Your task to perform on an android device: change text size in settings app Image 0: 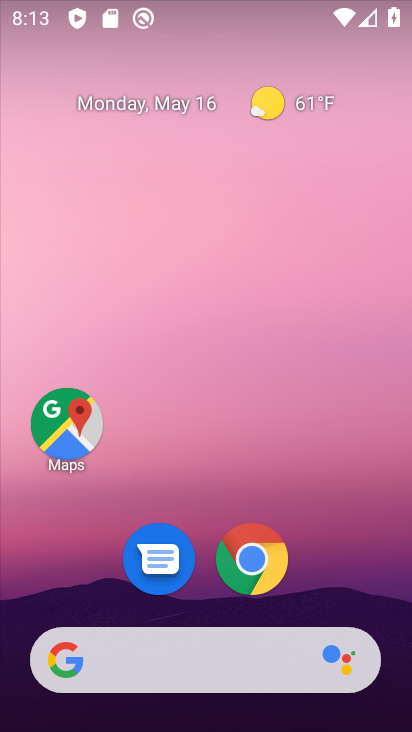
Step 0: drag from (342, 556) to (369, 119)
Your task to perform on an android device: change text size in settings app Image 1: 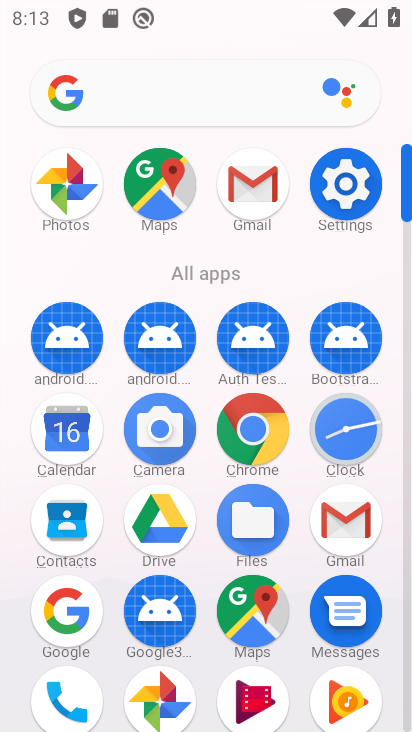
Step 1: click (376, 191)
Your task to perform on an android device: change text size in settings app Image 2: 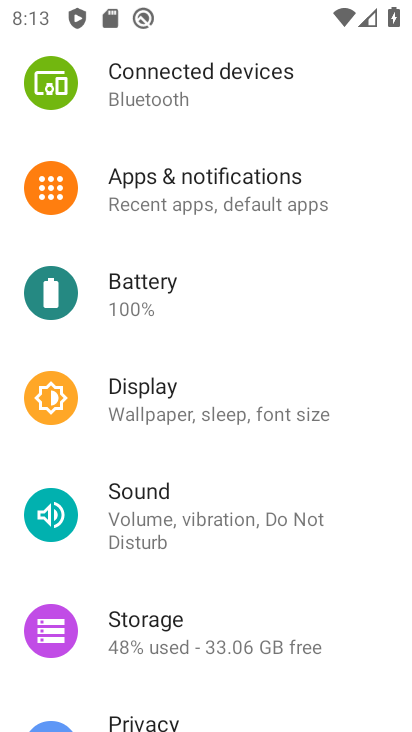
Step 2: drag from (241, 606) to (316, 300)
Your task to perform on an android device: change text size in settings app Image 3: 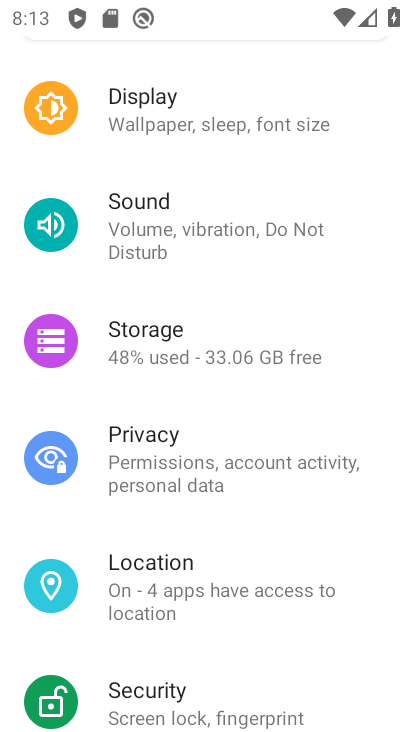
Step 3: click (285, 128)
Your task to perform on an android device: change text size in settings app Image 4: 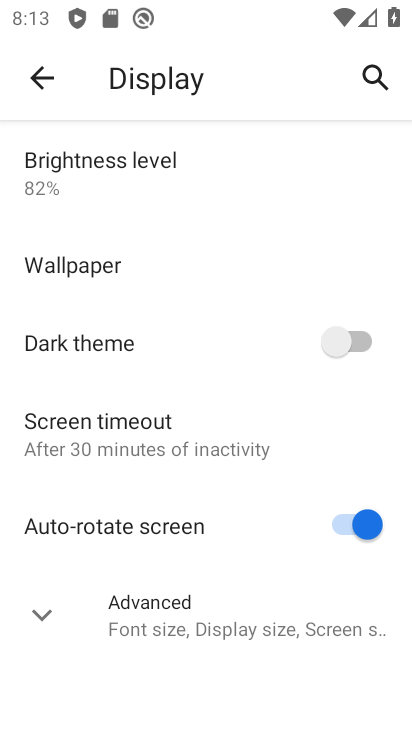
Step 4: click (36, 612)
Your task to perform on an android device: change text size in settings app Image 5: 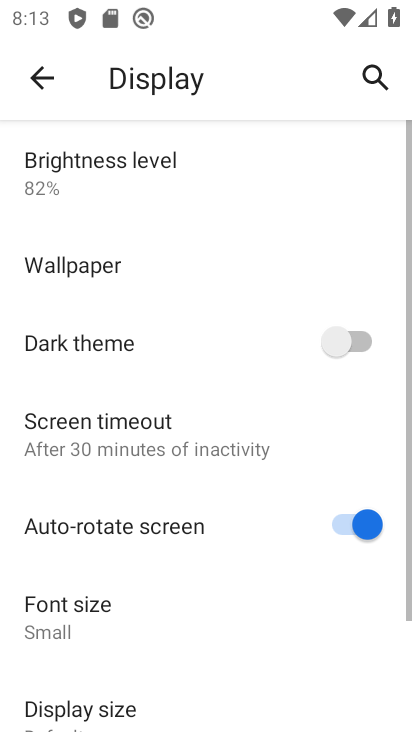
Step 5: drag from (129, 569) to (224, 275)
Your task to perform on an android device: change text size in settings app Image 6: 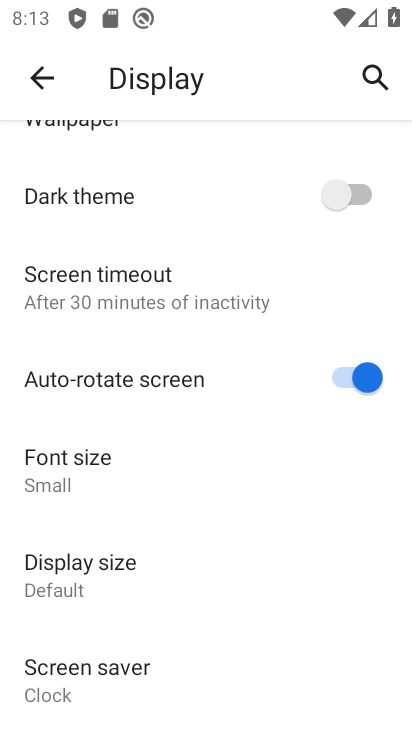
Step 6: click (155, 480)
Your task to perform on an android device: change text size in settings app Image 7: 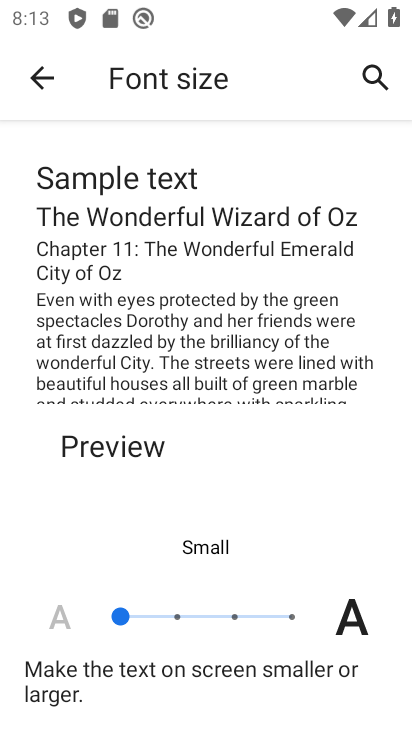
Step 7: click (171, 616)
Your task to perform on an android device: change text size in settings app Image 8: 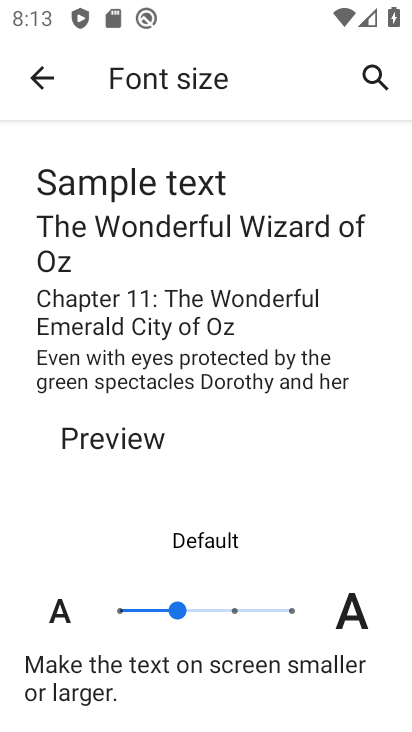
Step 8: task complete